Your task to perform on an android device: search for starred emails in the gmail app Image 0: 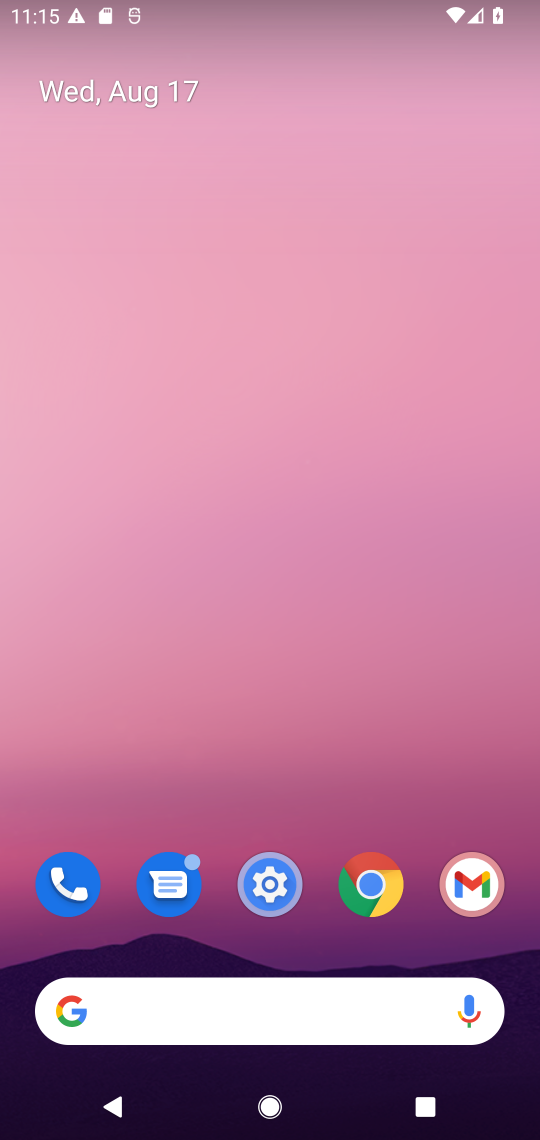
Step 0: press home button
Your task to perform on an android device: search for starred emails in the gmail app Image 1: 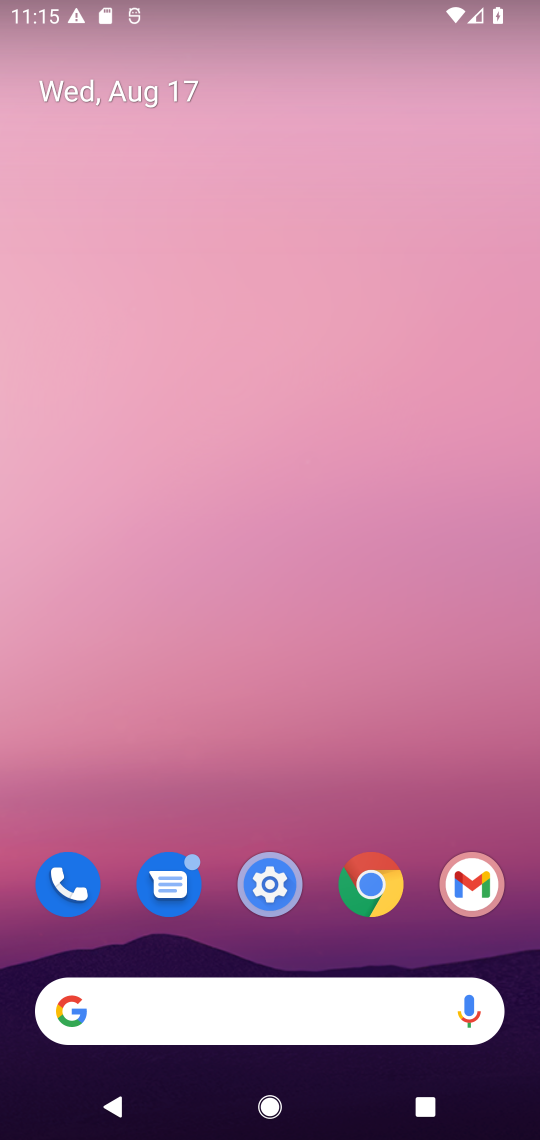
Step 1: click (467, 895)
Your task to perform on an android device: search for starred emails in the gmail app Image 2: 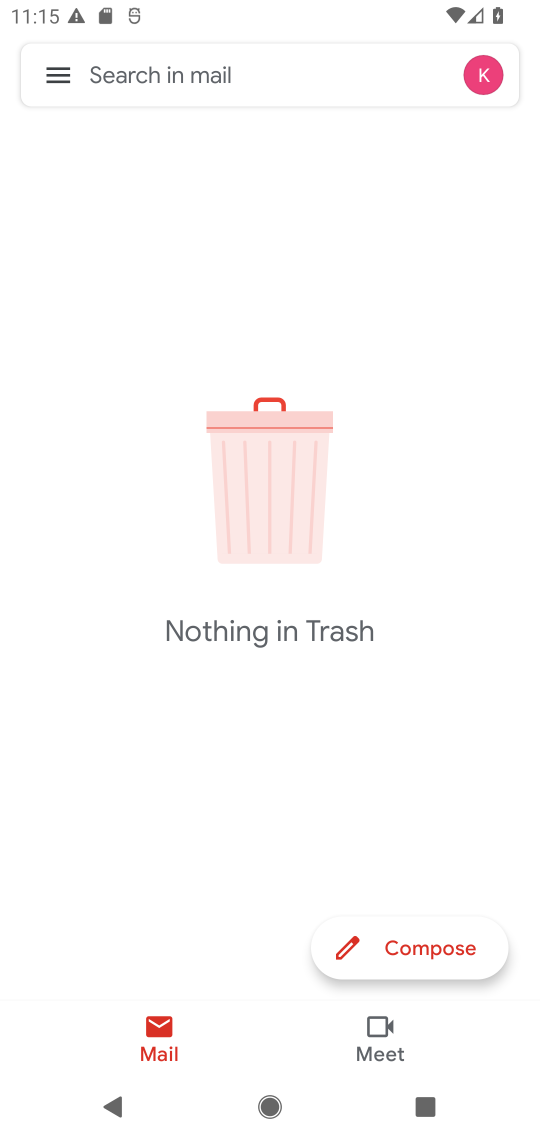
Step 2: click (46, 83)
Your task to perform on an android device: search for starred emails in the gmail app Image 3: 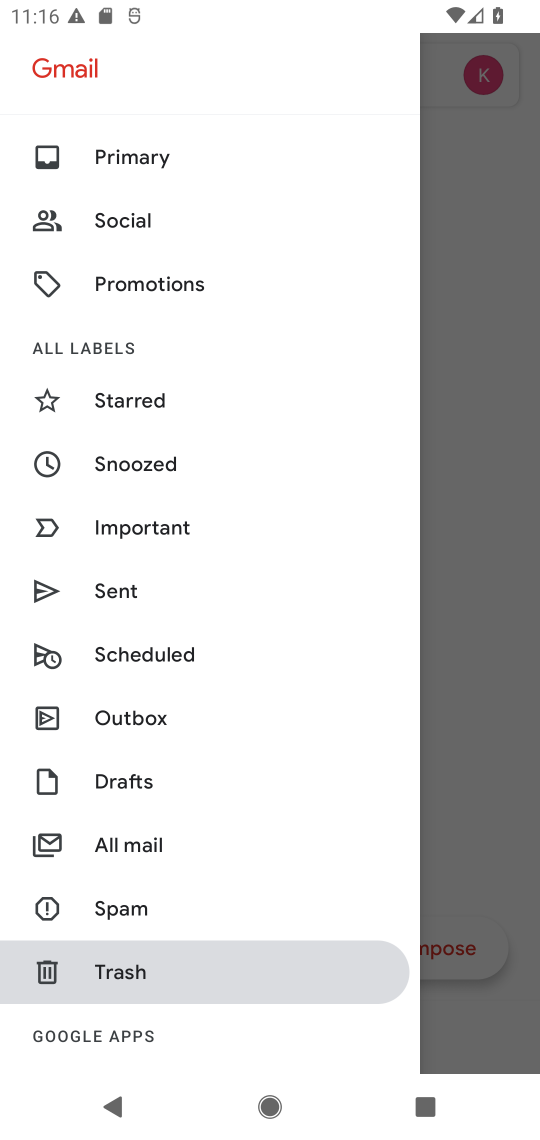
Step 3: click (158, 404)
Your task to perform on an android device: search for starred emails in the gmail app Image 4: 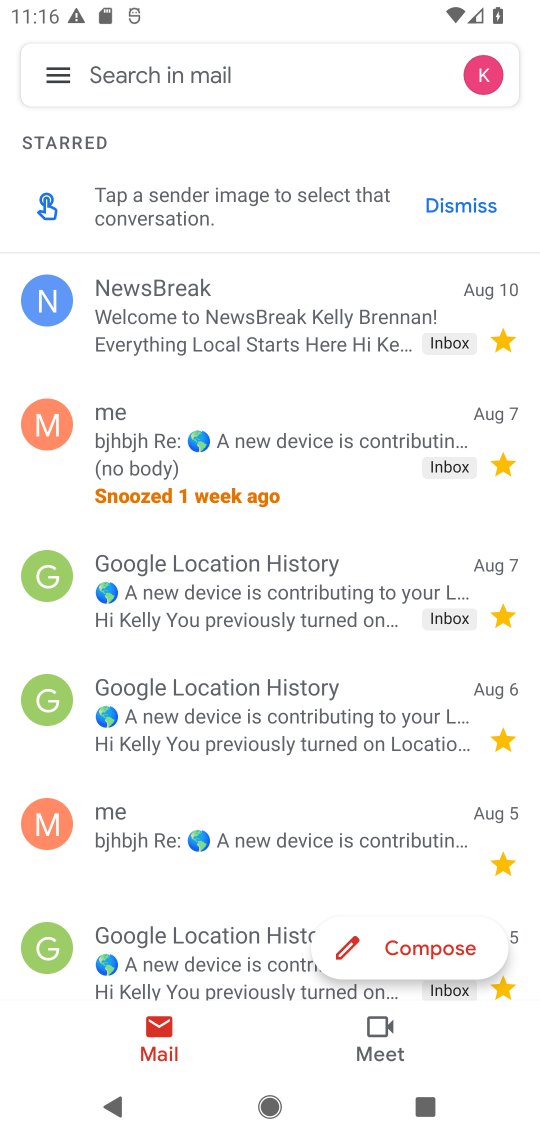
Step 4: task complete